Your task to perform on an android device: How do I get to the nearest T-Mobile Store? Image 0: 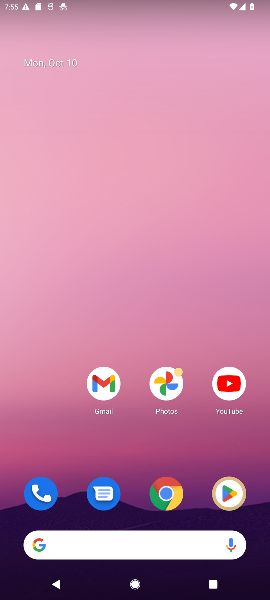
Step 0: press home button
Your task to perform on an android device: How do I get to the nearest T-Mobile Store? Image 1: 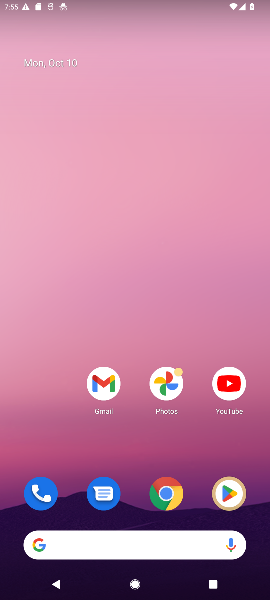
Step 1: drag from (134, 421) to (252, 24)
Your task to perform on an android device: How do I get to the nearest T-Mobile Store? Image 2: 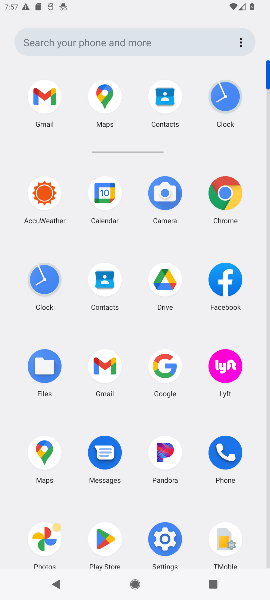
Step 2: click (160, 368)
Your task to perform on an android device: How do I get to the nearest T-Mobile Store? Image 3: 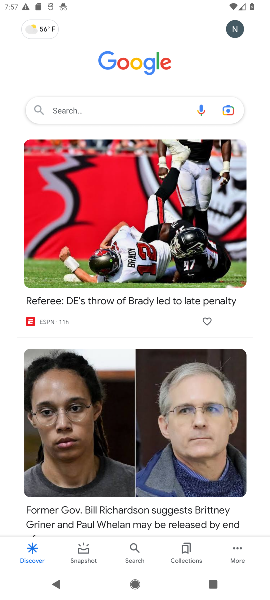
Step 3: click (121, 102)
Your task to perform on an android device: How do I get to the nearest T-Mobile Store? Image 4: 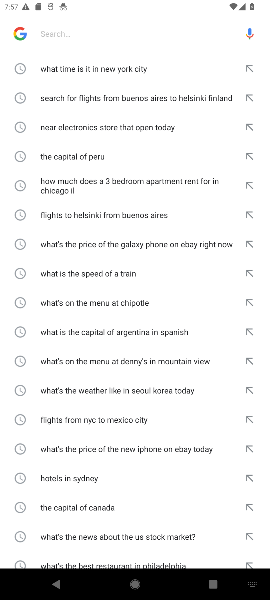
Step 4: type "How do I get to the nearest T-Mobile Store?"
Your task to perform on an android device: How do I get to the nearest T-Mobile Store? Image 5: 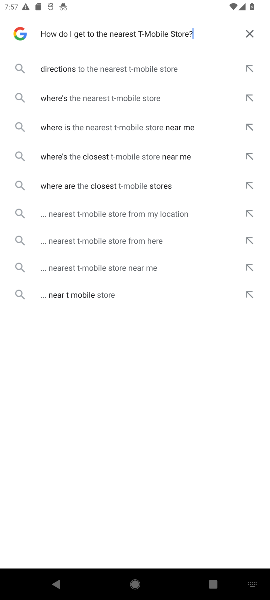
Step 5: click (120, 77)
Your task to perform on an android device: How do I get to the nearest T-Mobile Store? Image 6: 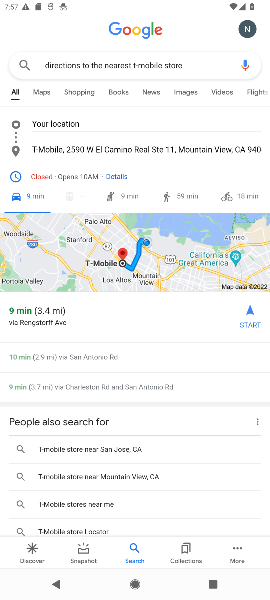
Step 6: task complete